Your task to perform on an android device: Go to network settings Image 0: 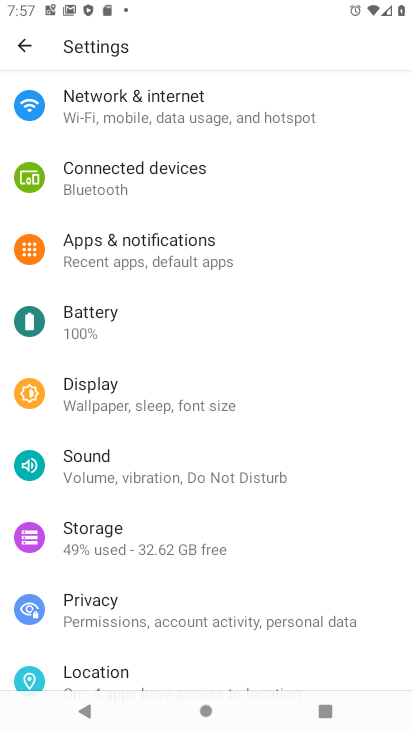
Step 0: drag from (255, 212) to (236, 655)
Your task to perform on an android device: Go to network settings Image 1: 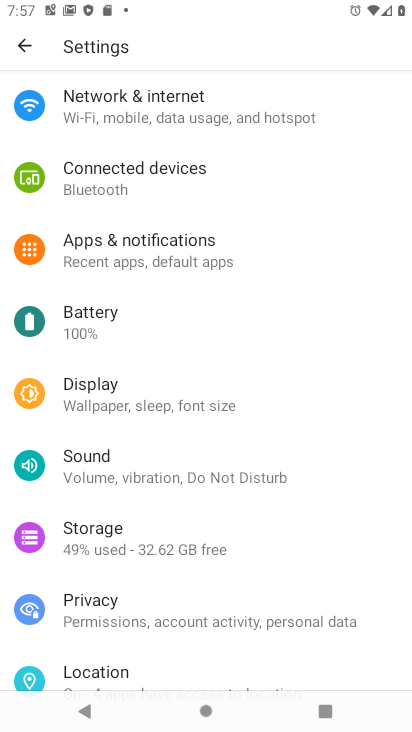
Step 1: click (156, 114)
Your task to perform on an android device: Go to network settings Image 2: 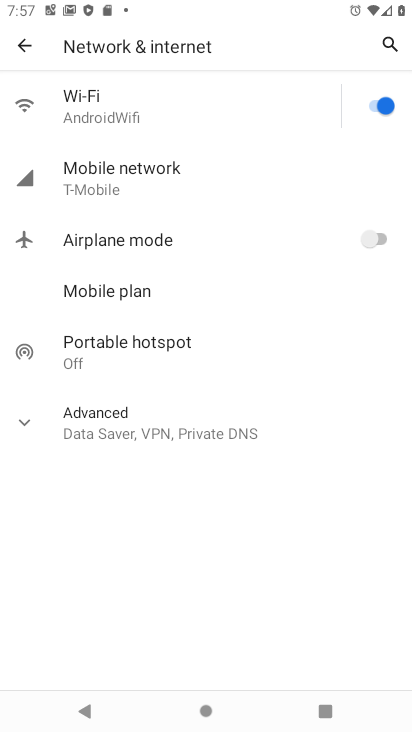
Step 2: task complete